Your task to perform on an android device: change the clock display to show seconds Image 0: 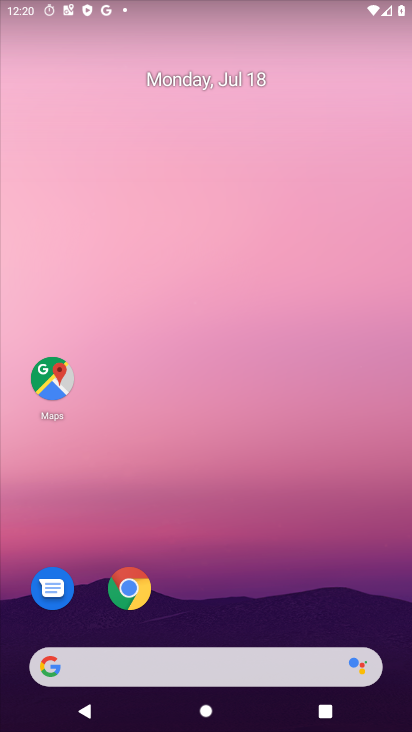
Step 0: drag from (242, 593) to (269, 97)
Your task to perform on an android device: change the clock display to show seconds Image 1: 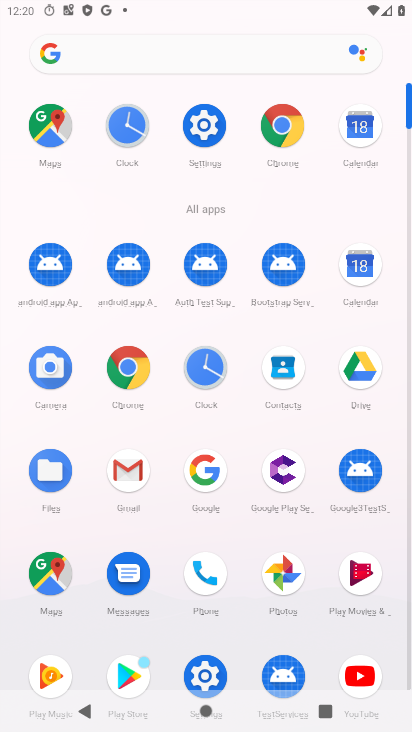
Step 1: click (197, 360)
Your task to perform on an android device: change the clock display to show seconds Image 2: 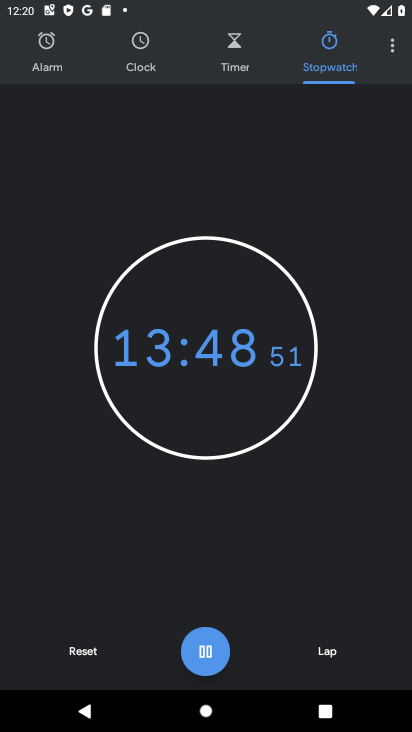
Step 2: click (393, 59)
Your task to perform on an android device: change the clock display to show seconds Image 3: 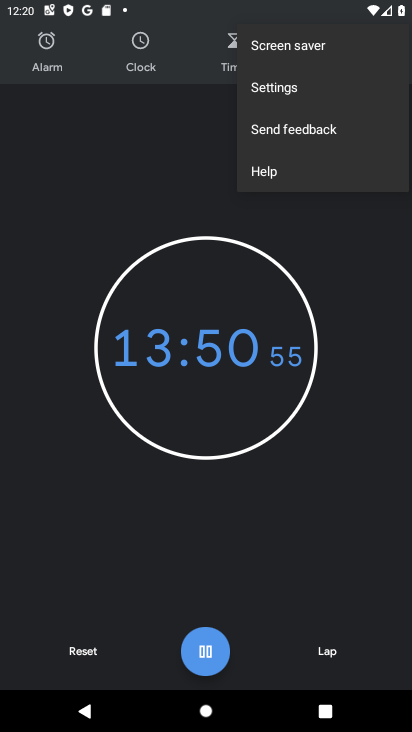
Step 3: click (275, 81)
Your task to perform on an android device: change the clock display to show seconds Image 4: 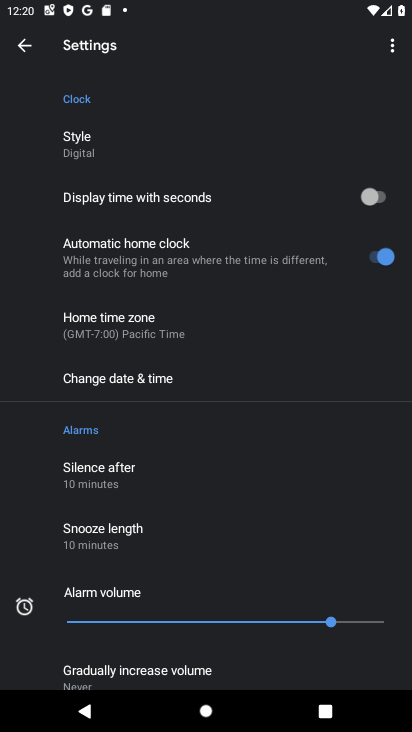
Step 4: click (379, 185)
Your task to perform on an android device: change the clock display to show seconds Image 5: 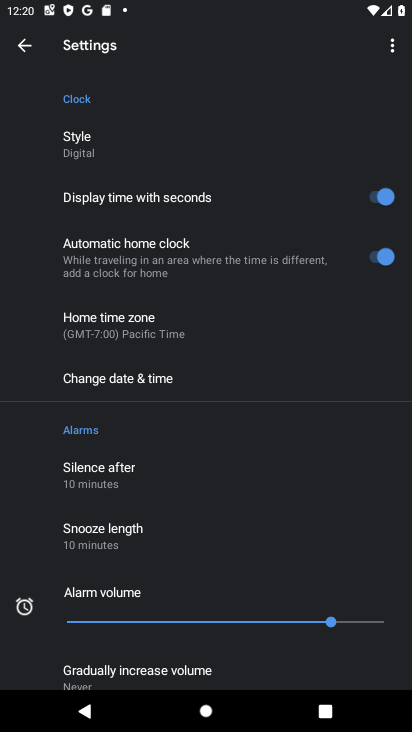
Step 5: task complete